Your task to perform on an android device: Open Amazon Image 0: 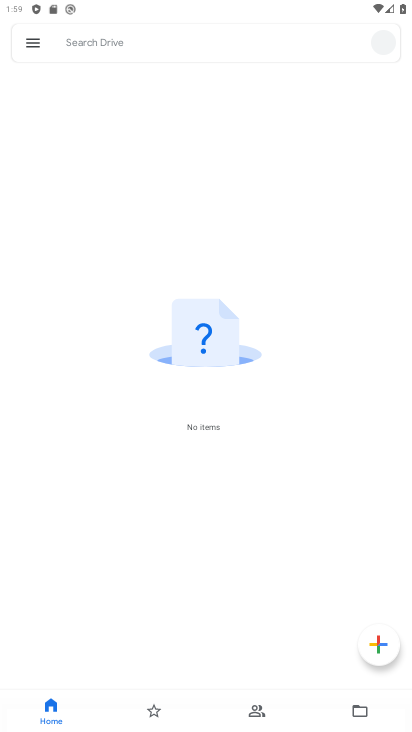
Step 0: press home button
Your task to perform on an android device: Open Amazon Image 1: 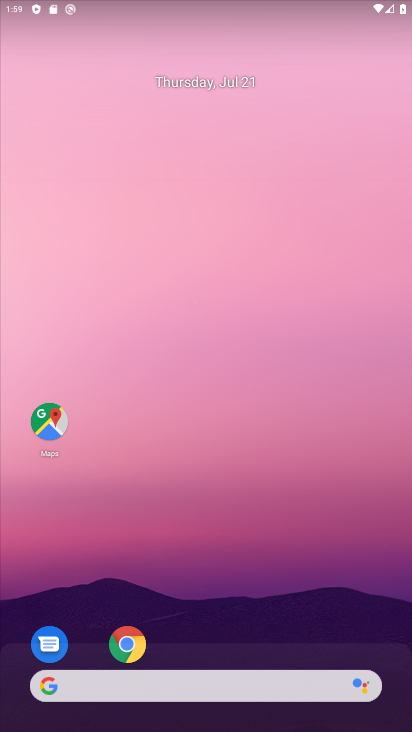
Step 1: click (138, 647)
Your task to perform on an android device: Open Amazon Image 2: 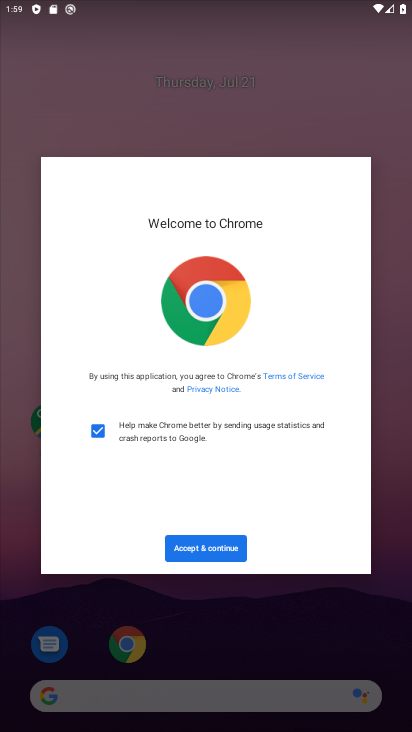
Step 2: click (216, 541)
Your task to perform on an android device: Open Amazon Image 3: 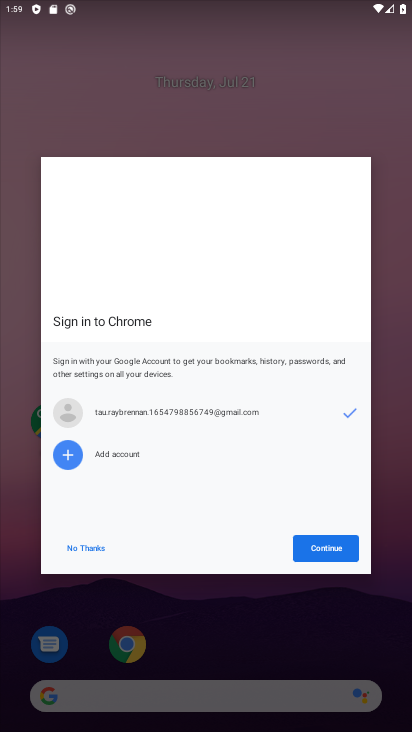
Step 3: click (333, 548)
Your task to perform on an android device: Open Amazon Image 4: 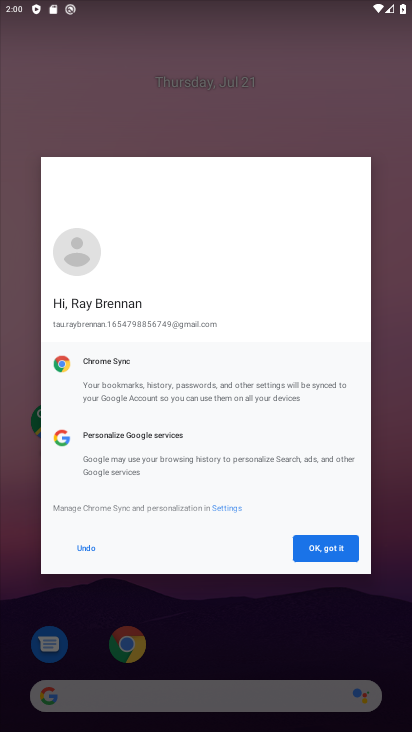
Step 4: click (333, 548)
Your task to perform on an android device: Open Amazon Image 5: 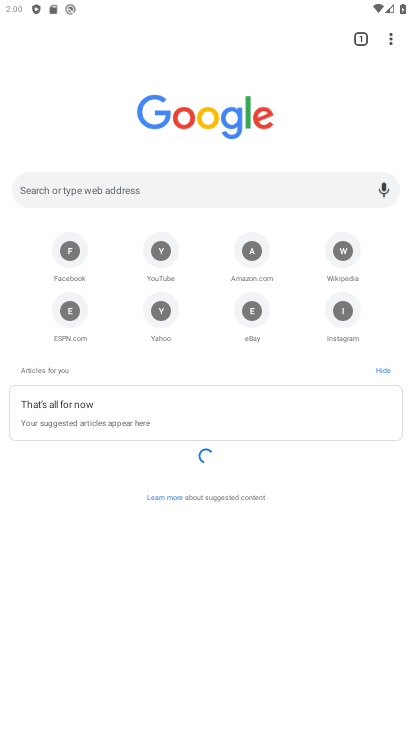
Step 5: click (257, 247)
Your task to perform on an android device: Open Amazon Image 6: 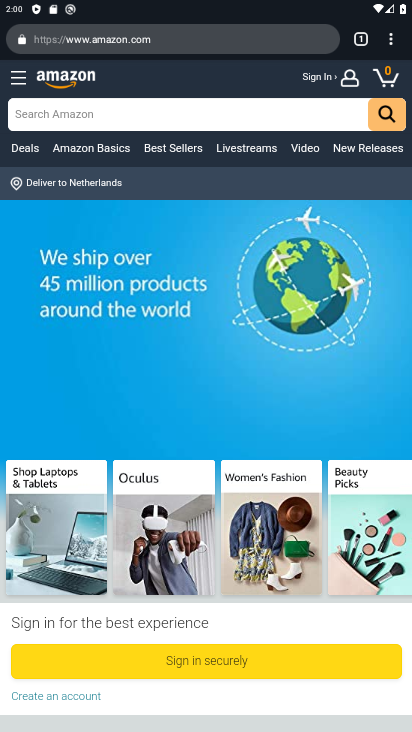
Step 6: task complete